Your task to perform on an android device: check storage Image 0: 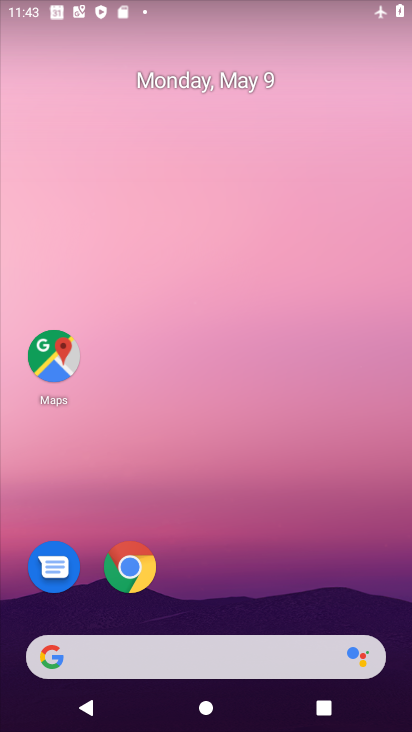
Step 0: drag from (359, 612) to (264, 96)
Your task to perform on an android device: check storage Image 1: 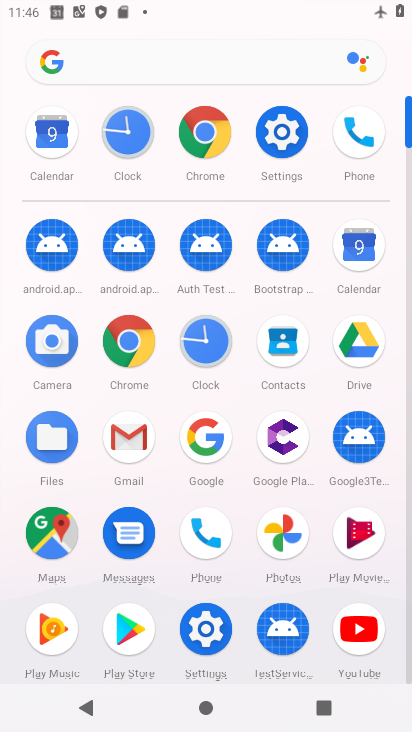
Step 1: click (194, 645)
Your task to perform on an android device: check storage Image 2: 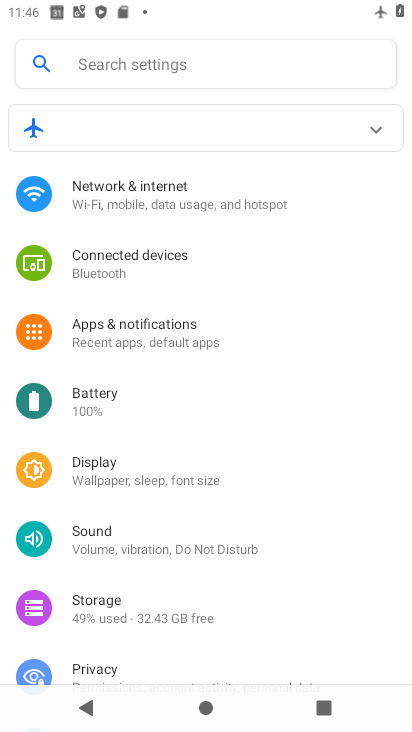
Step 2: click (140, 609)
Your task to perform on an android device: check storage Image 3: 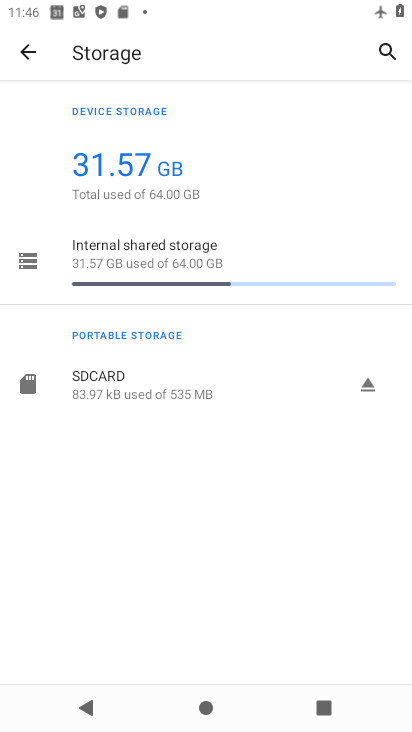
Step 3: click (150, 265)
Your task to perform on an android device: check storage Image 4: 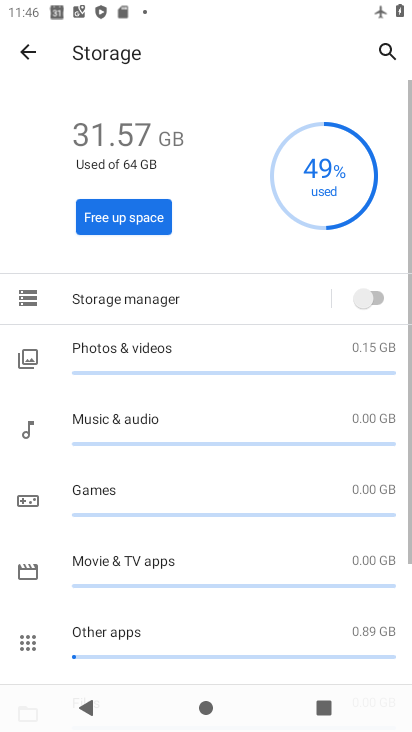
Step 4: task complete